Your task to perform on an android device: allow cookies in the chrome app Image 0: 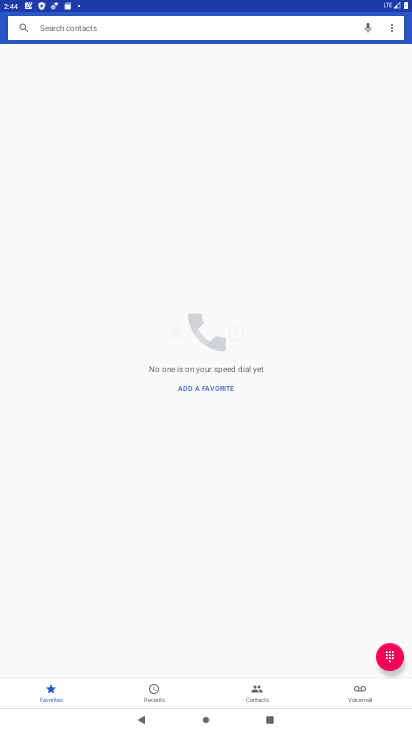
Step 0: press home button
Your task to perform on an android device: allow cookies in the chrome app Image 1: 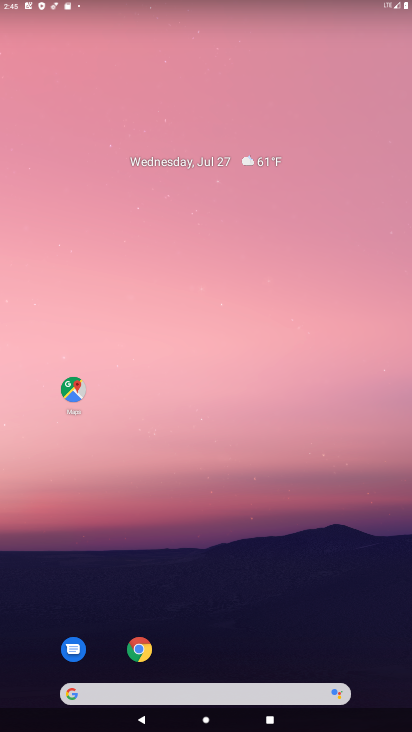
Step 1: click (140, 647)
Your task to perform on an android device: allow cookies in the chrome app Image 2: 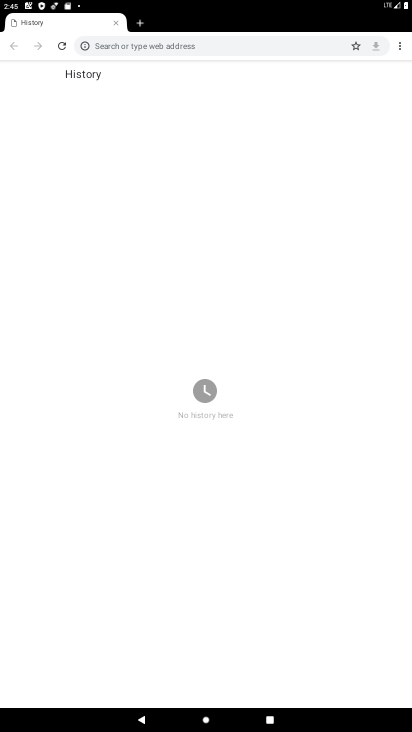
Step 2: click (400, 45)
Your task to perform on an android device: allow cookies in the chrome app Image 3: 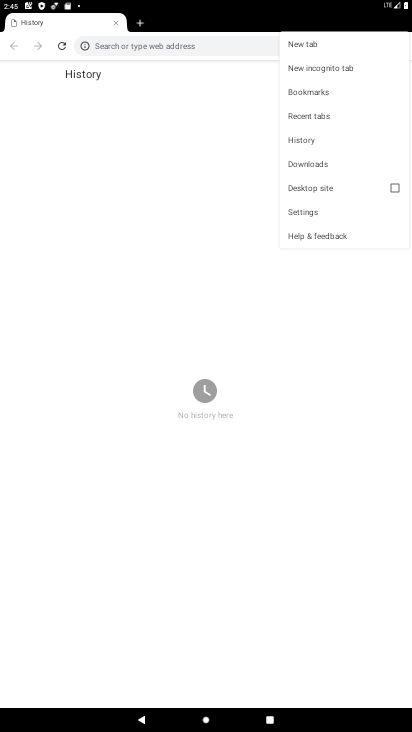
Step 3: click (300, 207)
Your task to perform on an android device: allow cookies in the chrome app Image 4: 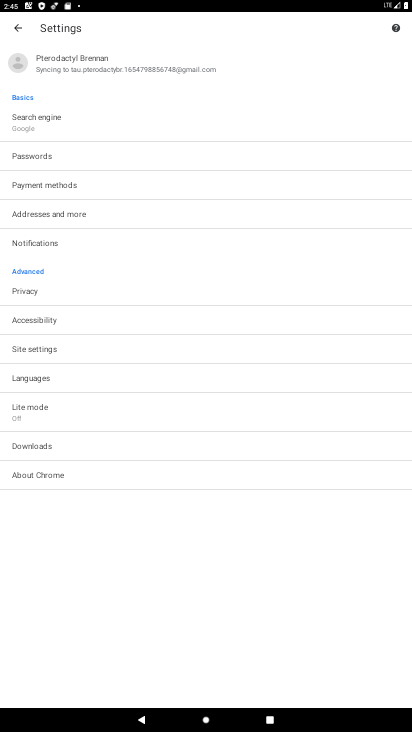
Step 4: click (38, 348)
Your task to perform on an android device: allow cookies in the chrome app Image 5: 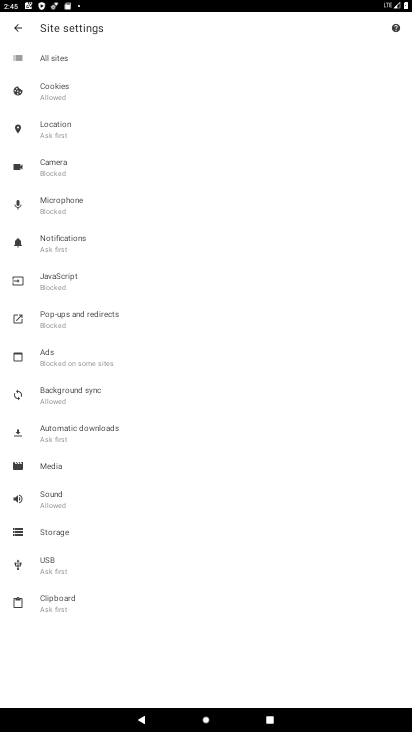
Step 5: click (53, 92)
Your task to perform on an android device: allow cookies in the chrome app Image 6: 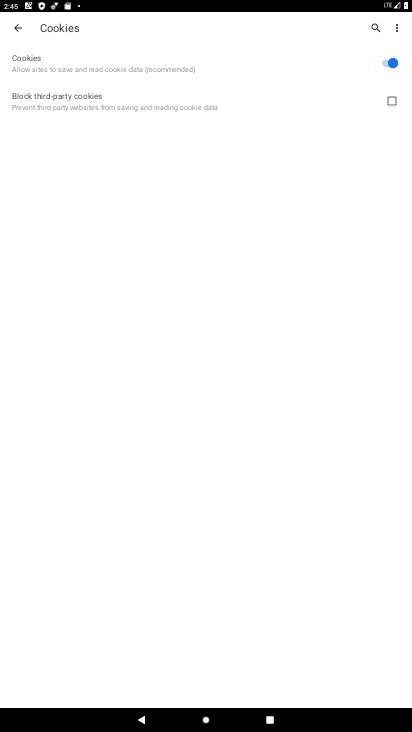
Step 6: task complete